Your task to perform on an android device: turn off priority inbox in the gmail app Image 0: 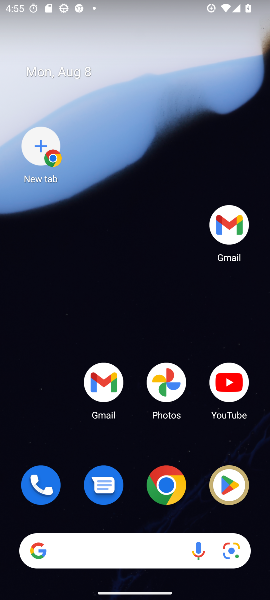
Step 0: drag from (208, 530) to (120, 274)
Your task to perform on an android device: turn off priority inbox in the gmail app Image 1: 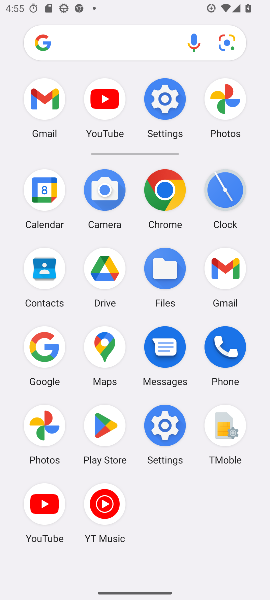
Step 1: click (221, 273)
Your task to perform on an android device: turn off priority inbox in the gmail app Image 2: 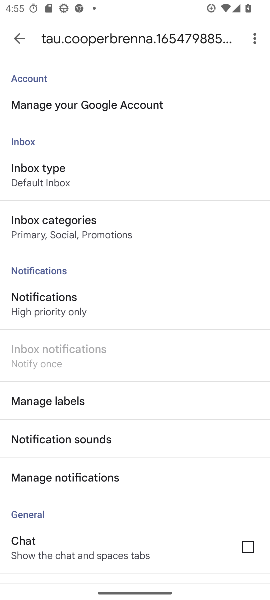
Step 2: click (32, 176)
Your task to perform on an android device: turn off priority inbox in the gmail app Image 3: 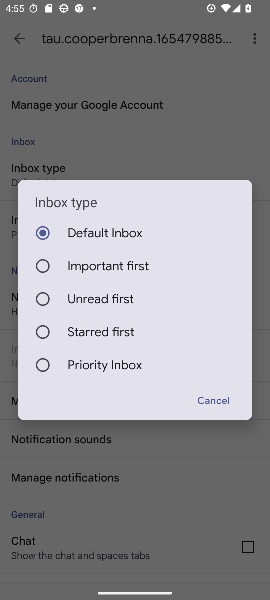
Step 3: click (39, 231)
Your task to perform on an android device: turn off priority inbox in the gmail app Image 4: 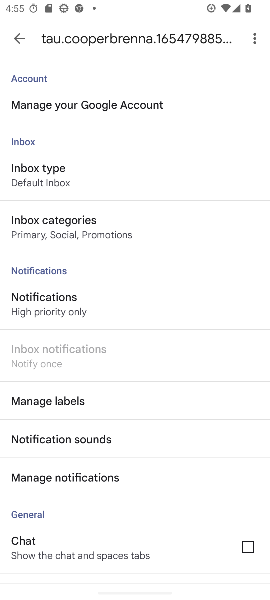
Step 4: click (211, 396)
Your task to perform on an android device: turn off priority inbox in the gmail app Image 5: 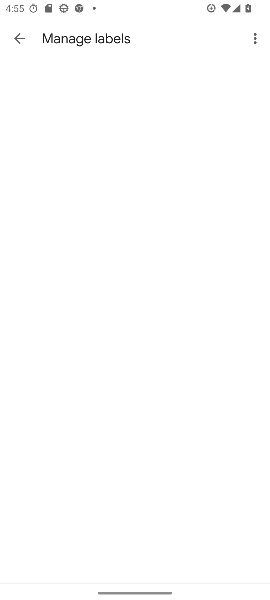
Step 5: task complete